Your task to perform on an android device: Search for pizza restaurants on Maps Image 0: 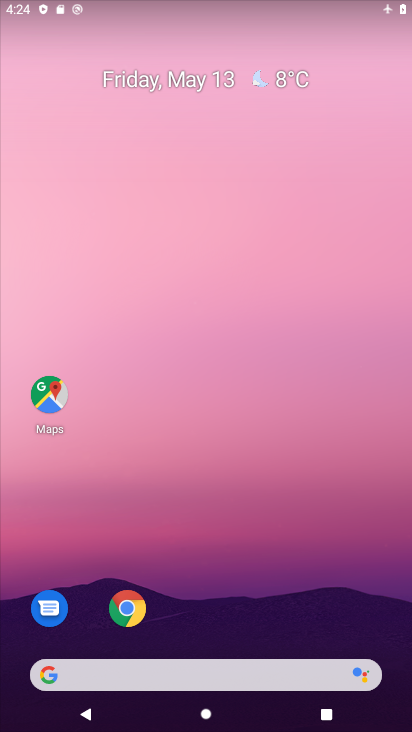
Step 0: click (47, 398)
Your task to perform on an android device: Search for pizza restaurants on Maps Image 1: 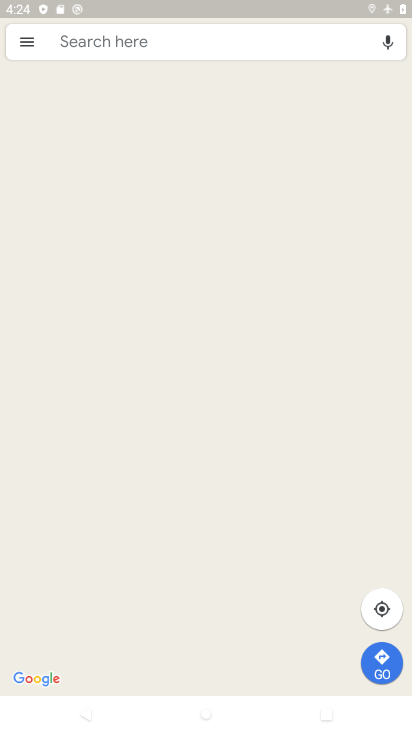
Step 1: click (164, 39)
Your task to perform on an android device: Search for pizza restaurants on Maps Image 2: 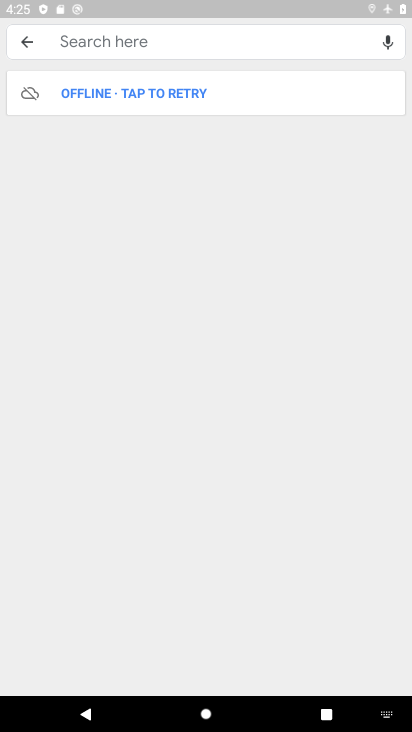
Step 2: type "pizza restaurants"
Your task to perform on an android device: Search for pizza restaurants on Maps Image 3: 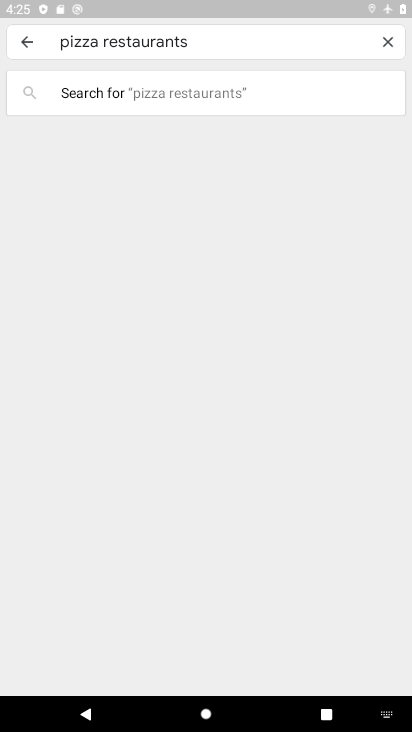
Step 3: task complete